Your task to perform on an android device: Open the stopwatch Image 0: 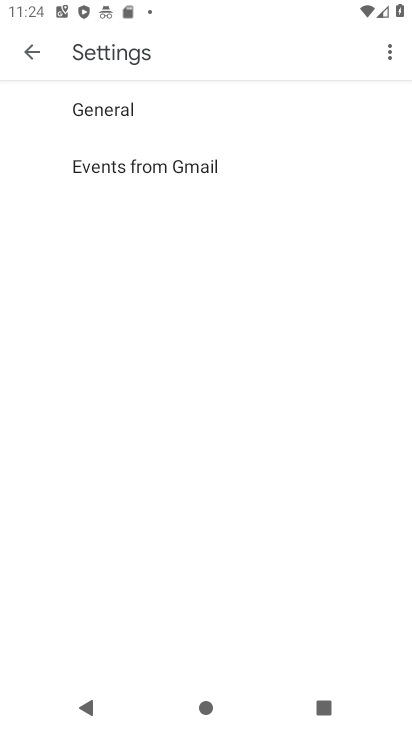
Step 0: press home button
Your task to perform on an android device: Open the stopwatch Image 1: 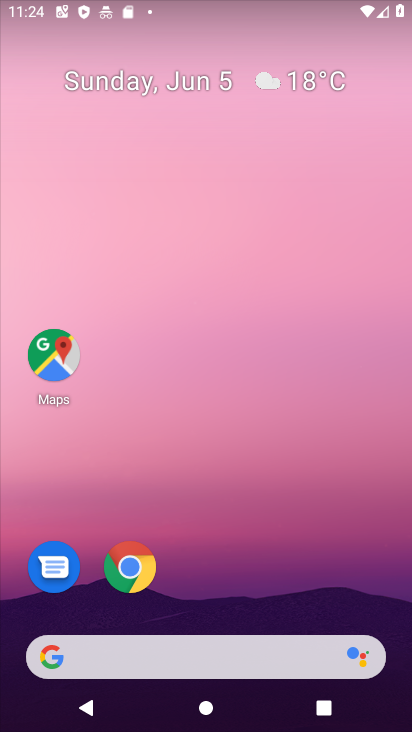
Step 1: drag from (211, 543) to (165, 80)
Your task to perform on an android device: Open the stopwatch Image 2: 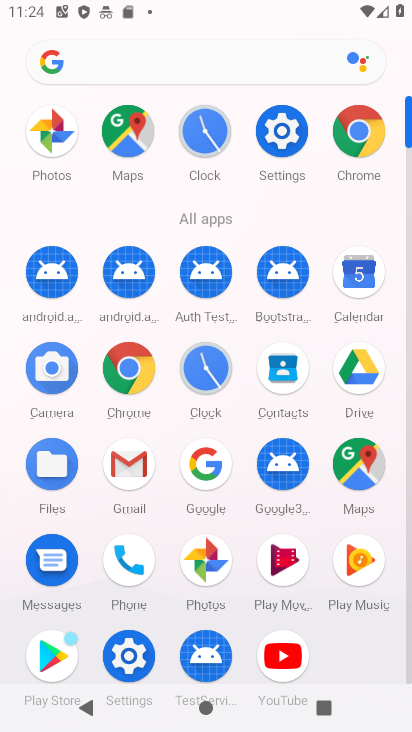
Step 2: click (198, 130)
Your task to perform on an android device: Open the stopwatch Image 3: 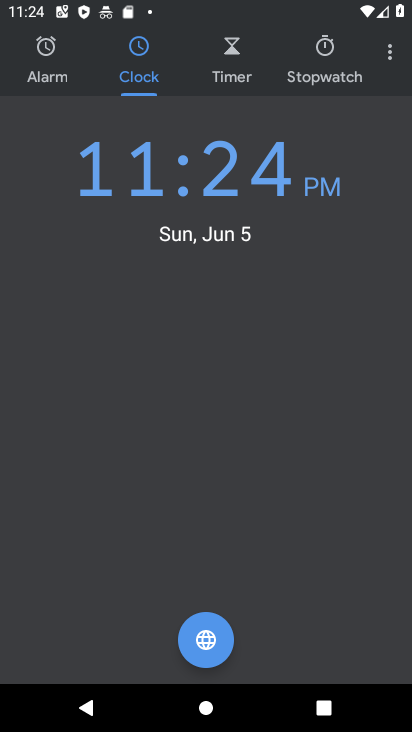
Step 3: click (322, 62)
Your task to perform on an android device: Open the stopwatch Image 4: 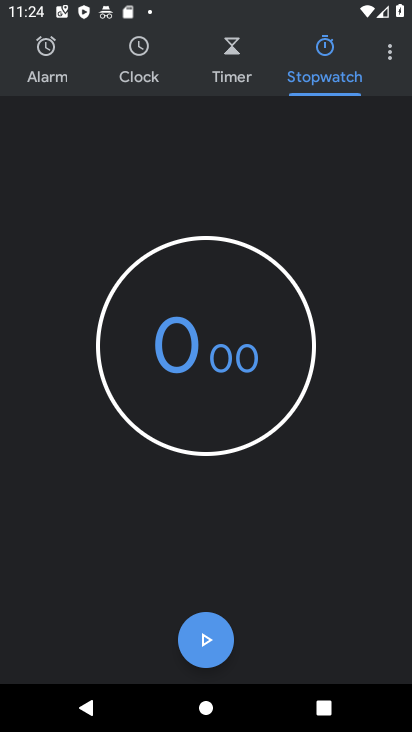
Step 4: task complete